Your task to perform on an android device: Open Android settings Image 0: 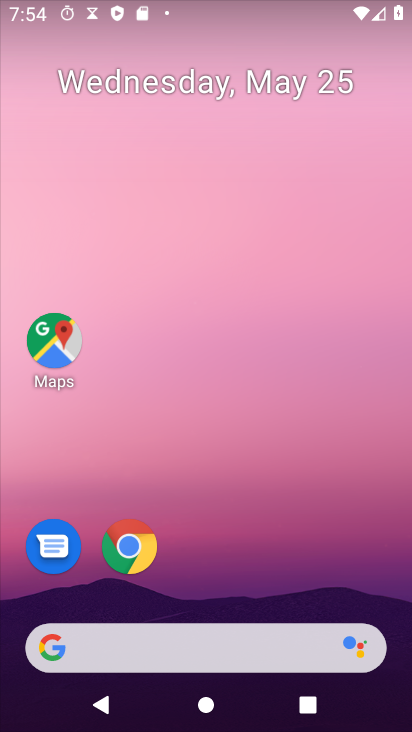
Step 0: drag from (204, 604) to (305, 4)
Your task to perform on an android device: Open Android settings Image 1: 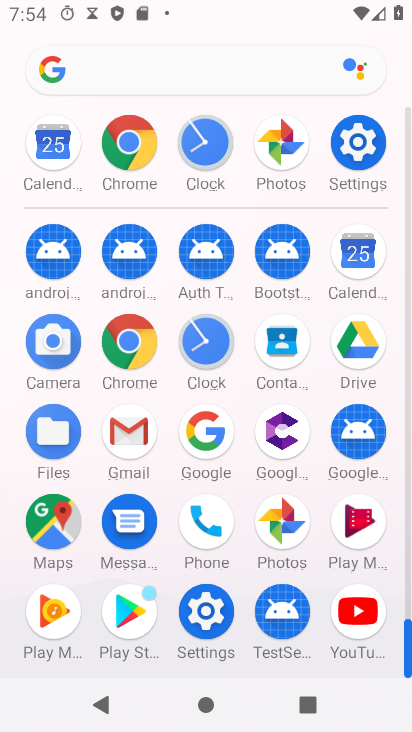
Step 1: click (359, 140)
Your task to perform on an android device: Open Android settings Image 2: 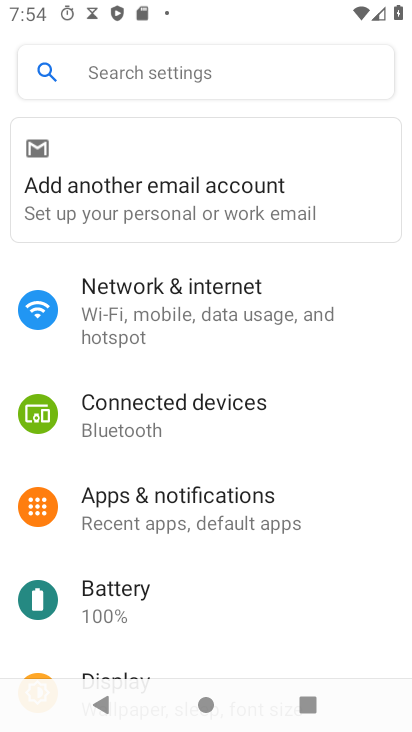
Step 2: drag from (179, 562) to (173, 90)
Your task to perform on an android device: Open Android settings Image 3: 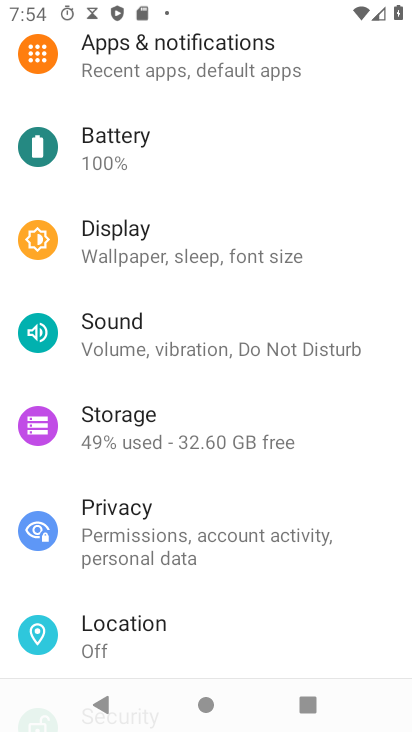
Step 3: drag from (211, 603) to (217, 233)
Your task to perform on an android device: Open Android settings Image 4: 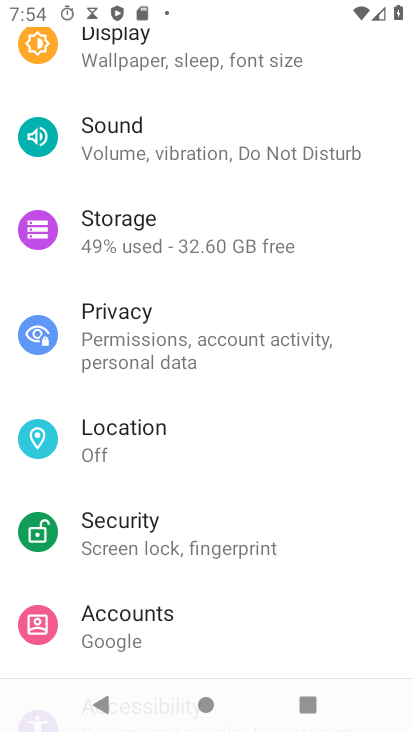
Step 4: drag from (192, 620) to (218, 260)
Your task to perform on an android device: Open Android settings Image 5: 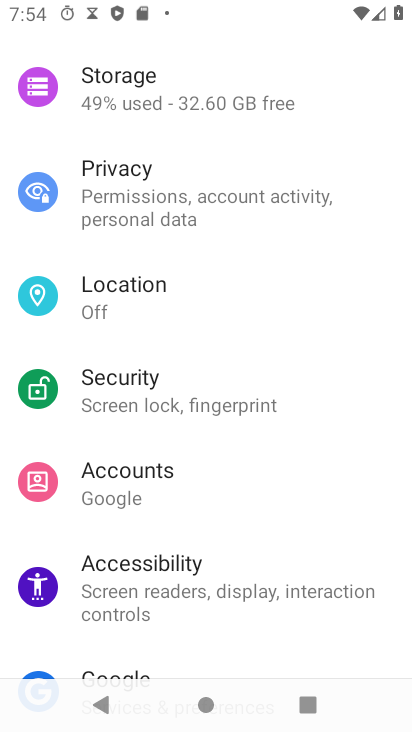
Step 5: drag from (171, 596) to (160, 269)
Your task to perform on an android device: Open Android settings Image 6: 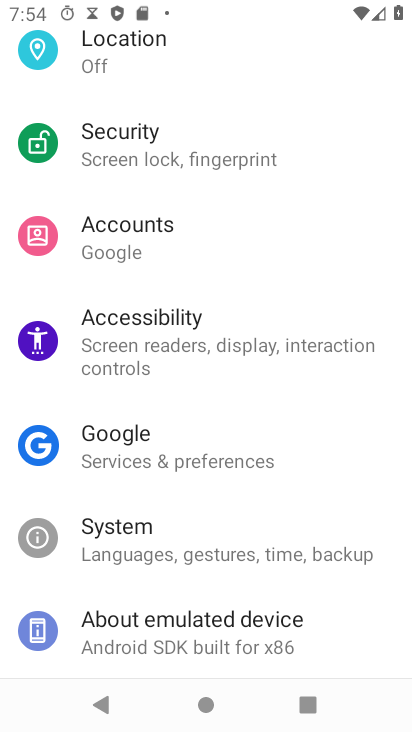
Step 6: click (161, 658)
Your task to perform on an android device: Open Android settings Image 7: 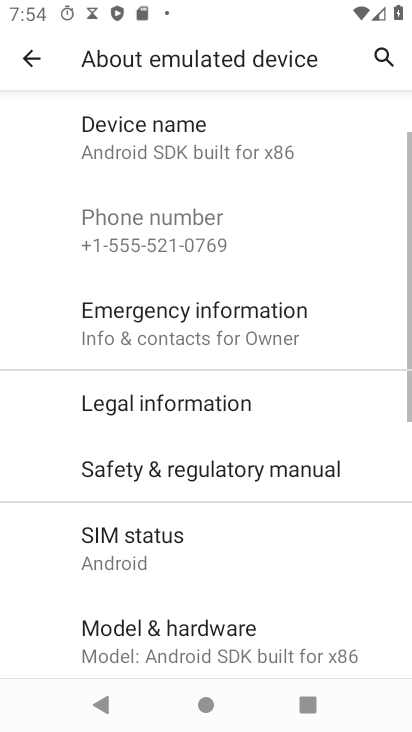
Step 7: drag from (149, 576) to (171, 218)
Your task to perform on an android device: Open Android settings Image 8: 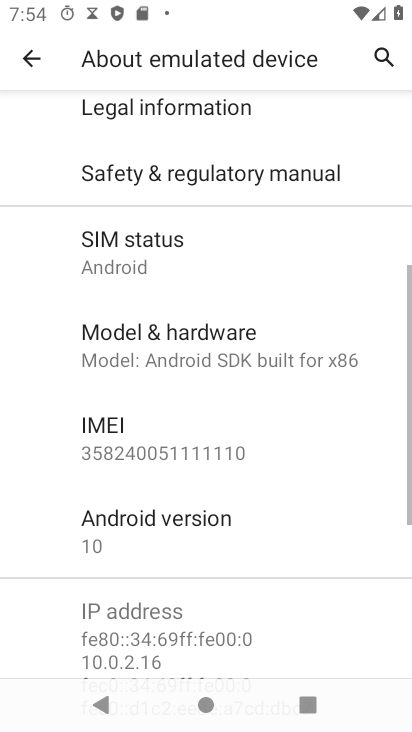
Step 8: click (138, 553)
Your task to perform on an android device: Open Android settings Image 9: 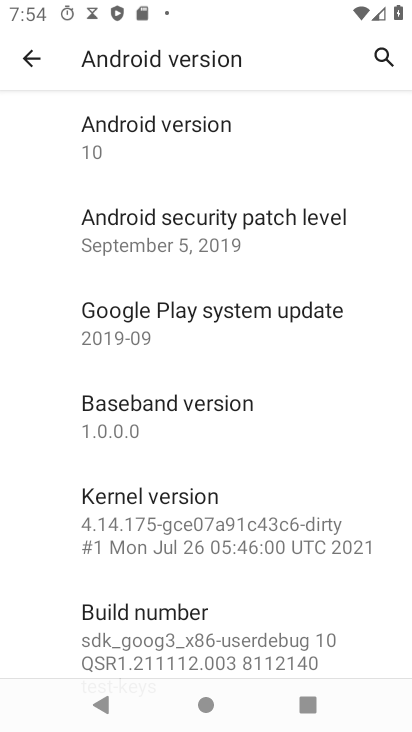
Step 9: task complete